Your task to perform on an android device: Go to location settings Image 0: 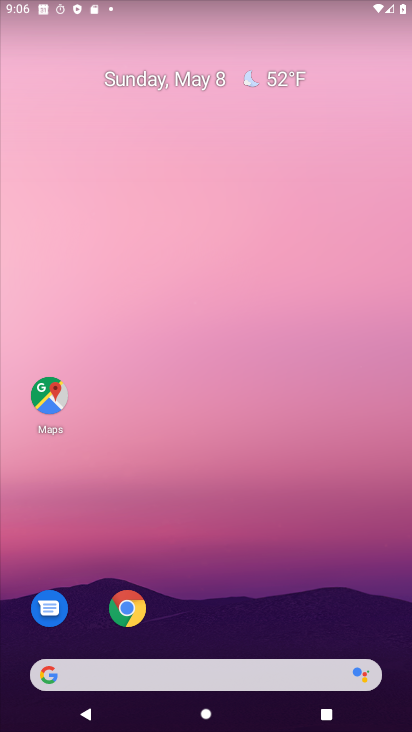
Step 0: drag from (160, 666) to (195, 70)
Your task to perform on an android device: Go to location settings Image 1: 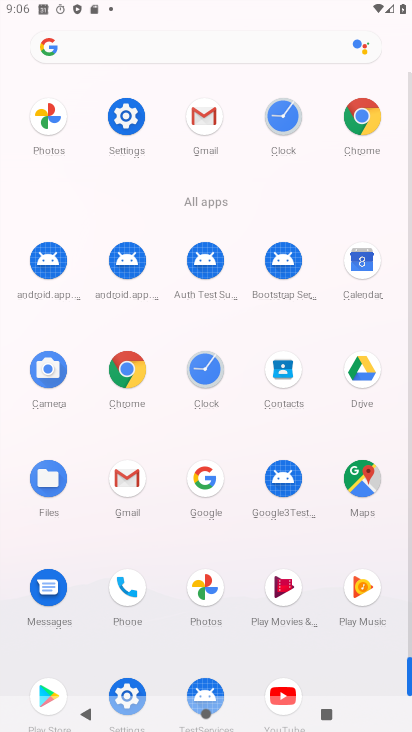
Step 1: drag from (247, 636) to (214, 253)
Your task to perform on an android device: Go to location settings Image 2: 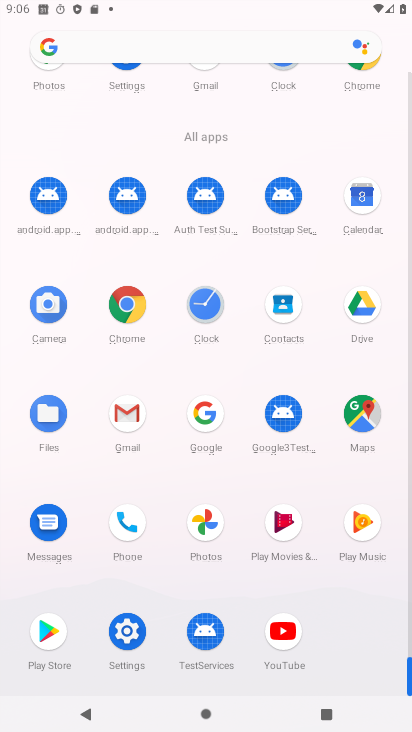
Step 2: click (125, 630)
Your task to perform on an android device: Go to location settings Image 3: 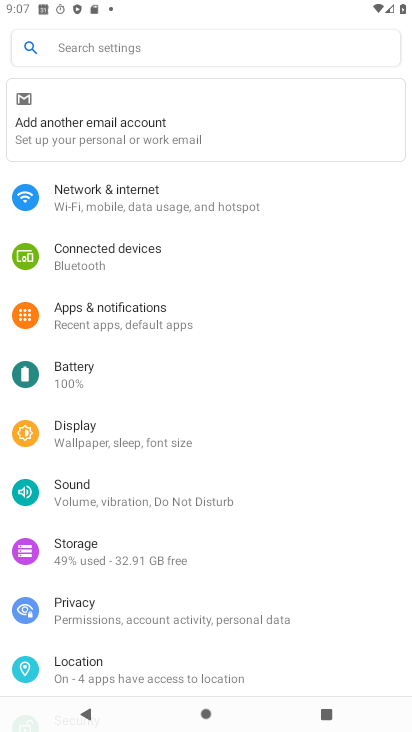
Step 3: click (87, 676)
Your task to perform on an android device: Go to location settings Image 4: 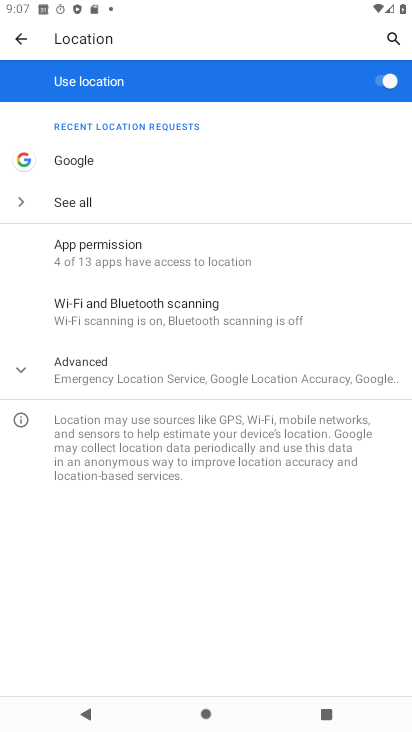
Step 4: task complete